Your task to perform on an android device: Clear the cart on target. Search for "razer huntsman" on target, select the first entry, and add it to the cart. Image 0: 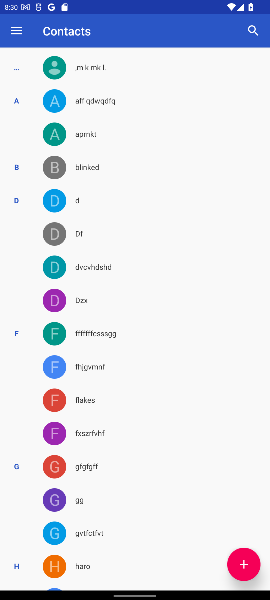
Step 0: press home button
Your task to perform on an android device: Clear the cart on target. Search for "razer huntsman" on target, select the first entry, and add it to the cart. Image 1: 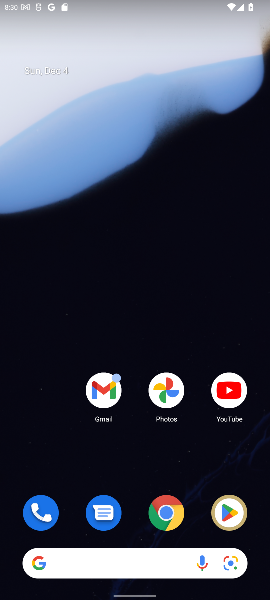
Step 1: click (167, 514)
Your task to perform on an android device: Clear the cart on target. Search for "razer huntsman" on target, select the first entry, and add it to the cart. Image 2: 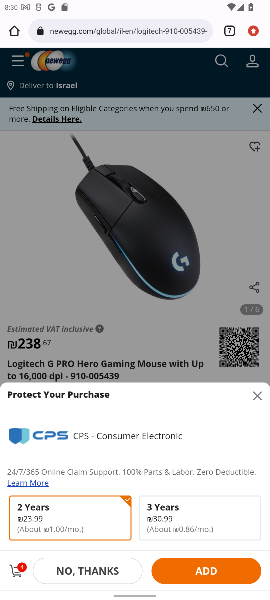
Step 2: click (229, 28)
Your task to perform on an android device: Clear the cart on target. Search for "razer huntsman" on target, select the first entry, and add it to the cart. Image 3: 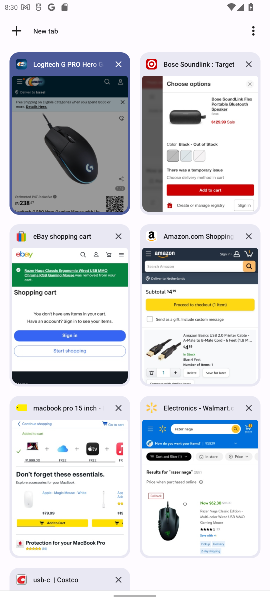
Step 3: click (196, 115)
Your task to perform on an android device: Clear the cart on target. Search for "razer huntsman" on target, select the first entry, and add it to the cart. Image 4: 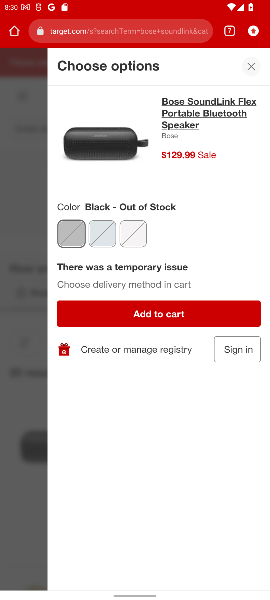
Step 4: click (249, 69)
Your task to perform on an android device: Clear the cart on target. Search for "razer huntsman" on target, select the first entry, and add it to the cart. Image 5: 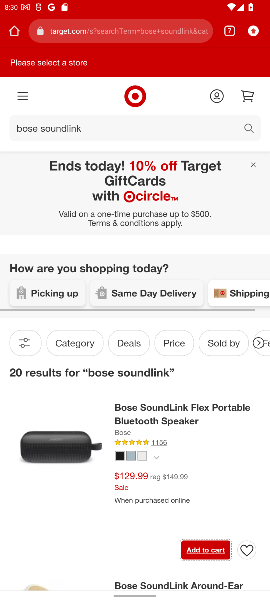
Step 5: click (199, 122)
Your task to perform on an android device: Clear the cart on target. Search for "razer huntsman" on target, select the first entry, and add it to the cart. Image 6: 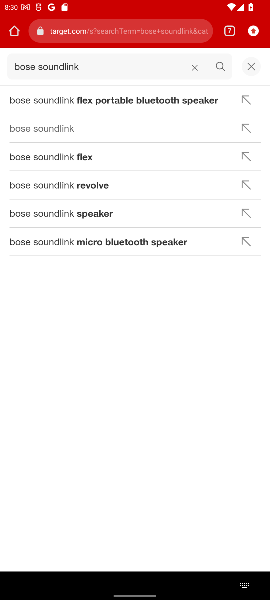
Step 6: click (198, 68)
Your task to perform on an android device: Clear the cart on target. Search for "razer huntsman" on target, select the first entry, and add it to the cart. Image 7: 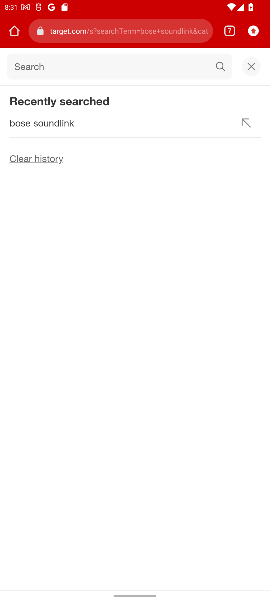
Step 7: type "razer huntsman"
Your task to perform on an android device: Clear the cart on target. Search for "razer huntsman" on target, select the first entry, and add it to the cart. Image 8: 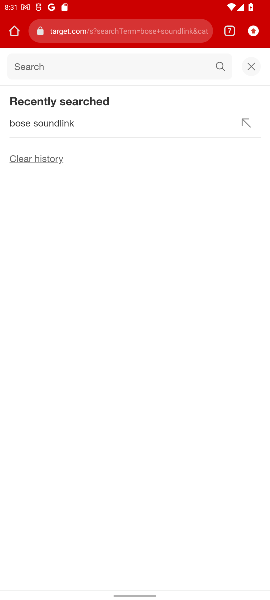
Step 8: click (49, 66)
Your task to perform on an android device: Clear the cart on target. Search for "razer huntsman" on target, select the first entry, and add it to the cart. Image 9: 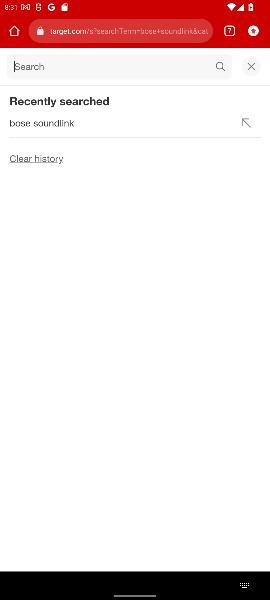
Step 9: type "razer huntsman"
Your task to perform on an android device: Clear the cart on target. Search for "razer huntsman" on target, select the first entry, and add it to the cart. Image 10: 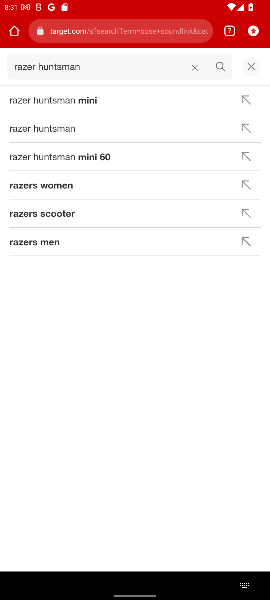
Step 10: click (66, 131)
Your task to perform on an android device: Clear the cart on target. Search for "razer huntsman" on target, select the first entry, and add it to the cart. Image 11: 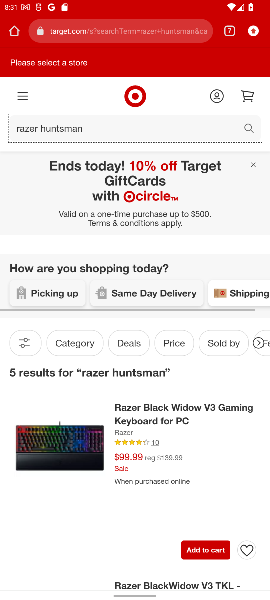
Step 11: task complete